Your task to perform on an android device: toggle airplane mode Image 0: 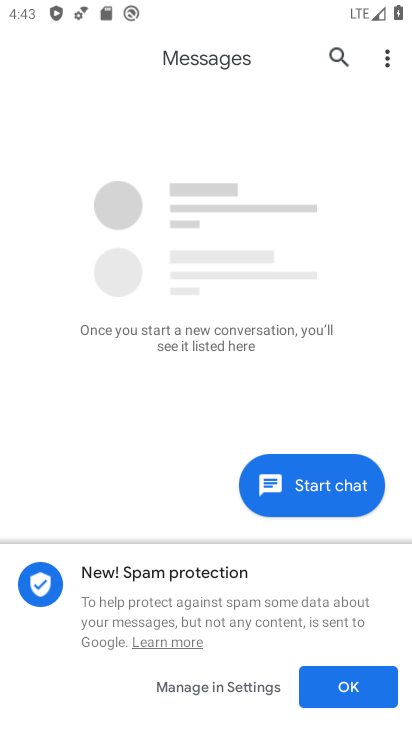
Step 0: press home button
Your task to perform on an android device: toggle airplane mode Image 1: 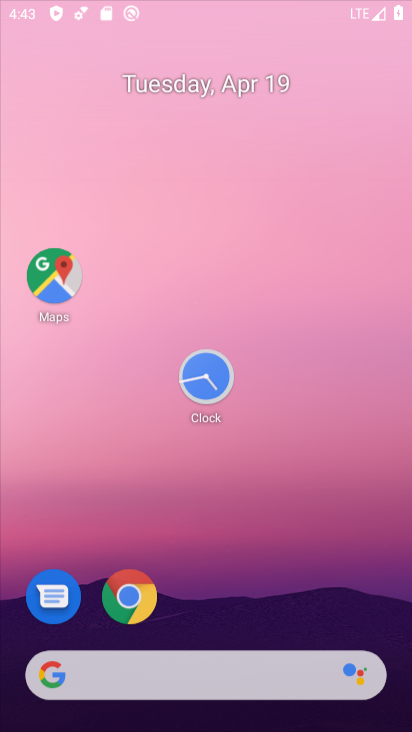
Step 1: press home button
Your task to perform on an android device: toggle airplane mode Image 2: 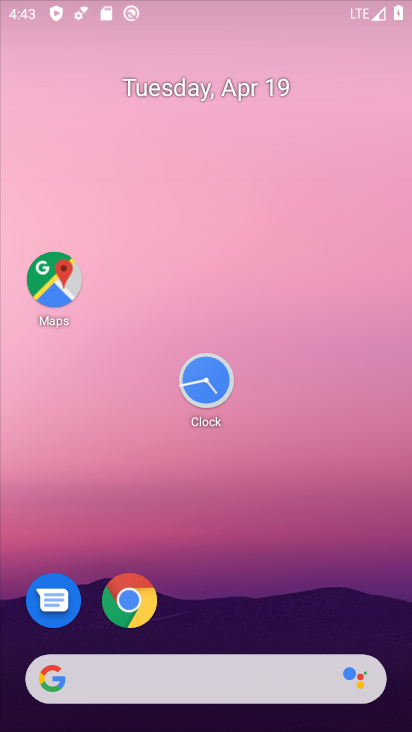
Step 2: press home button
Your task to perform on an android device: toggle airplane mode Image 3: 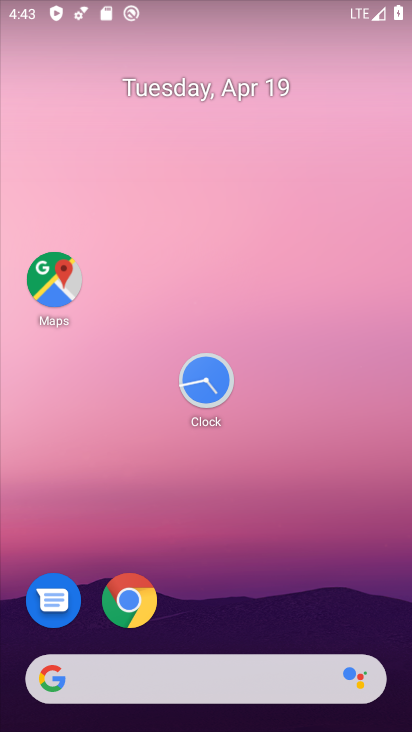
Step 3: press home button
Your task to perform on an android device: toggle airplane mode Image 4: 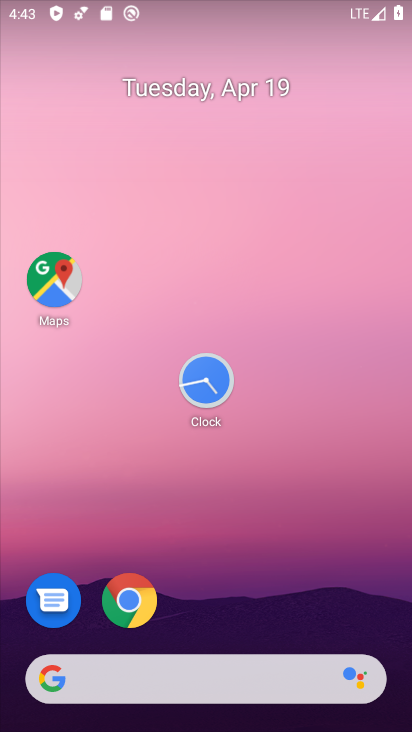
Step 4: drag from (281, 545) to (161, 203)
Your task to perform on an android device: toggle airplane mode Image 5: 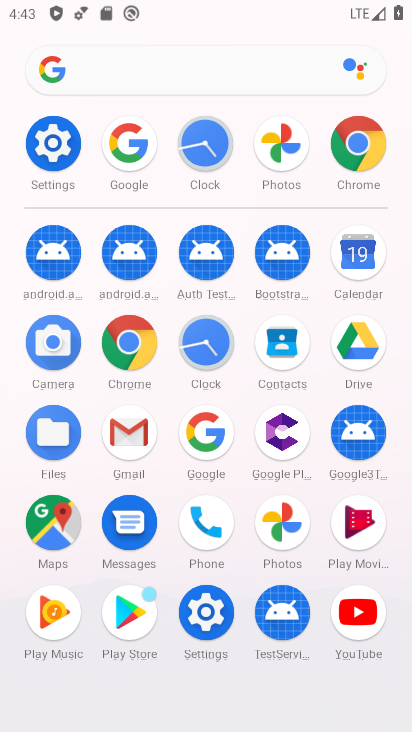
Step 5: drag from (267, 571) to (132, 85)
Your task to perform on an android device: toggle airplane mode Image 6: 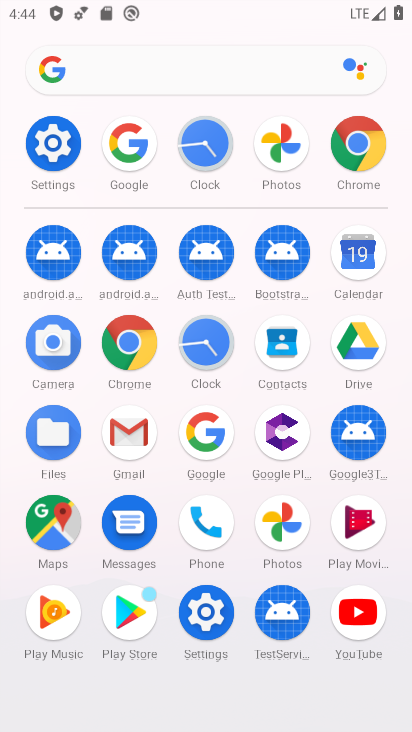
Step 6: click (43, 138)
Your task to perform on an android device: toggle airplane mode Image 7: 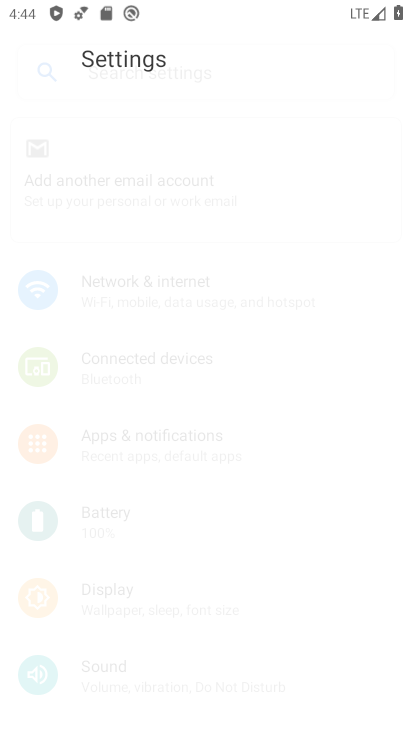
Step 7: click (45, 137)
Your task to perform on an android device: toggle airplane mode Image 8: 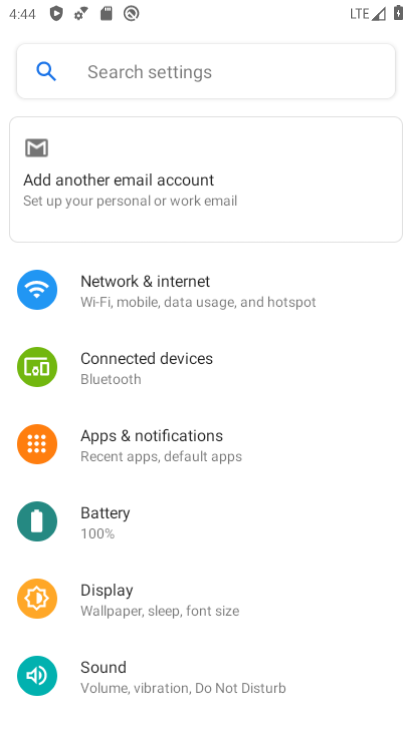
Step 8: click (48, 139)
Your task to perform on an android device: toggle airplane mode Image 9: 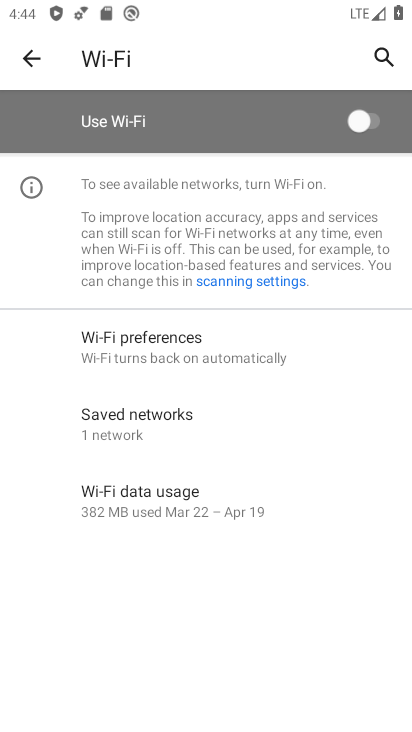
Step 9: click (31, 55)
Your task to perform on an android device: toggle airplane mode Image 10: 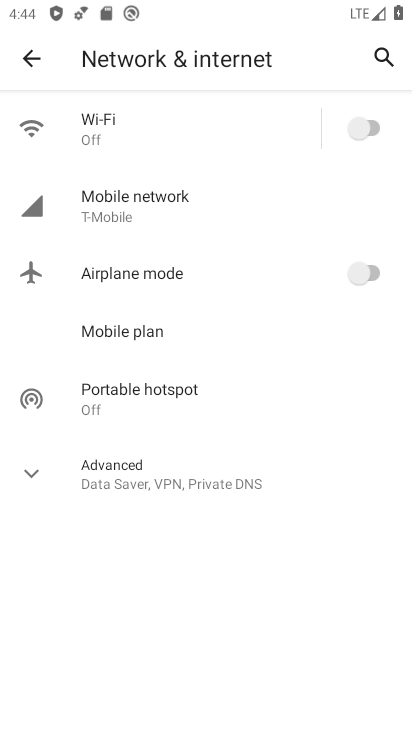
Step 10: click (31, 62)
Your task to perform on an android device: toggle airplane mode Image 11: 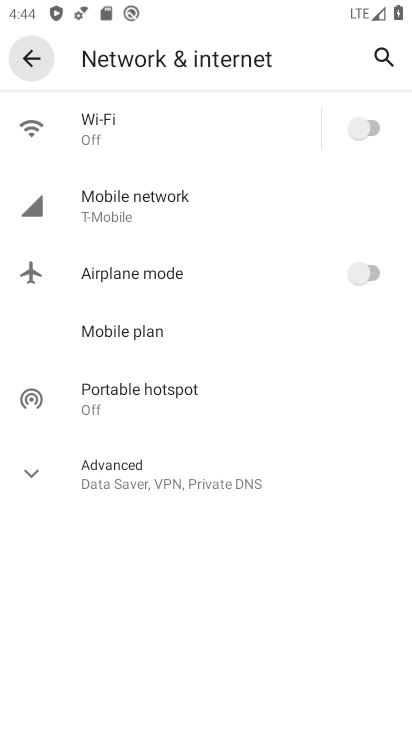
Step 11: click (31, 62)
Your task to perform on an android device: toggle airplane mode Image 12: 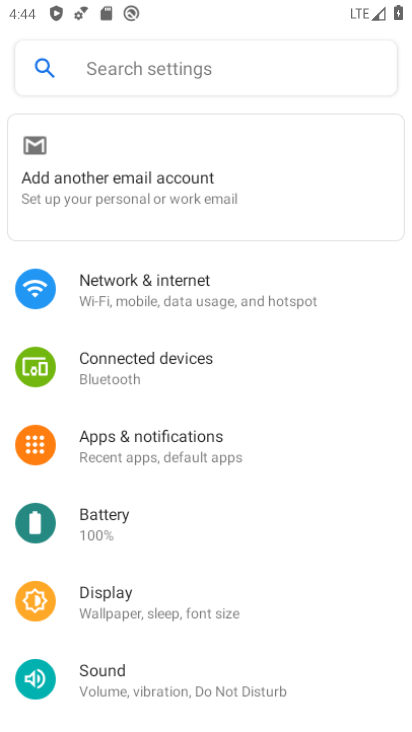
Step 12: click (31, 62)
Your task to perform on an android device: toggle airplane mode Image 13: 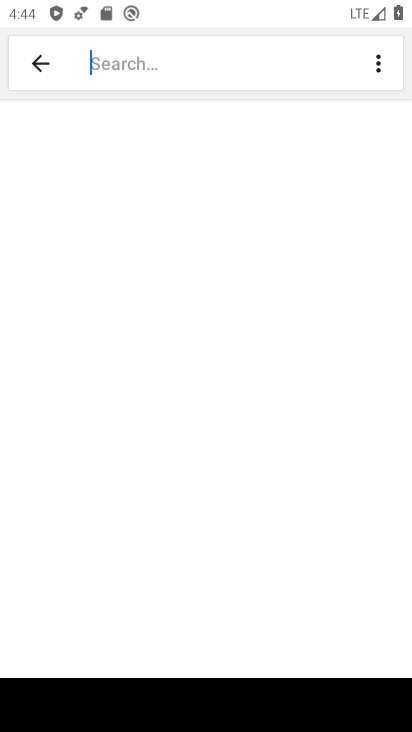
Step 13: click (36, 60)
Your task to perform on an android device: toggle airplane mode Image 14: 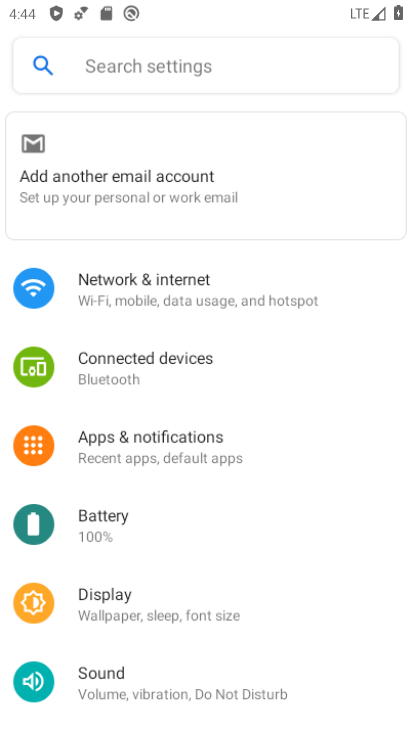
Step 14: click (33, 62)
Your task to perform on an android device: toggle airplane mode Image 15: 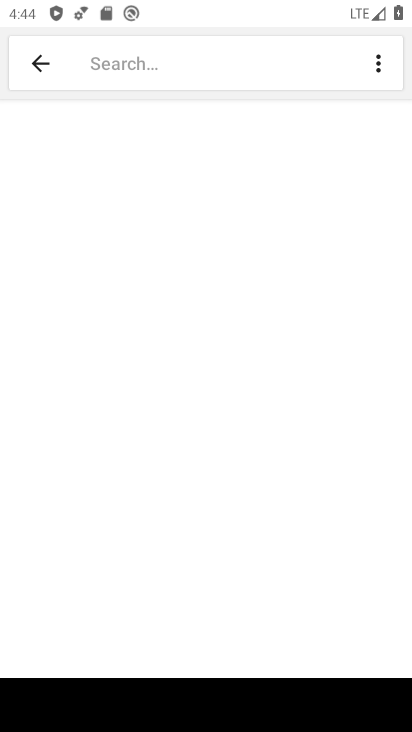
Step 15: click (39, 56)
Your task to perform on an android device: toggle airplane mode Image 16: 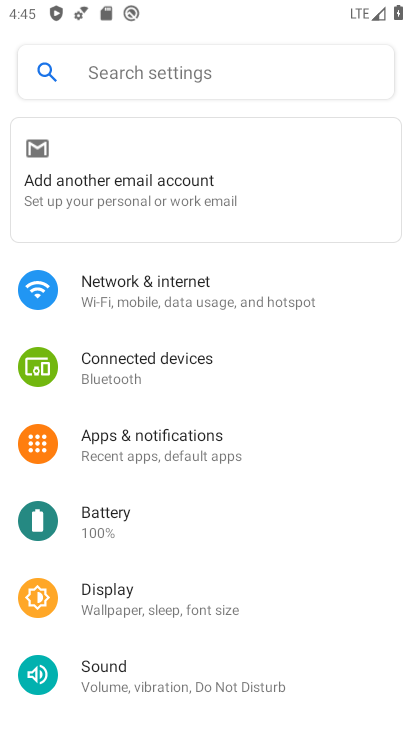
Step 16: click (168, 282)
Your task to perform on an android device: toggle airplane mode Image 17: 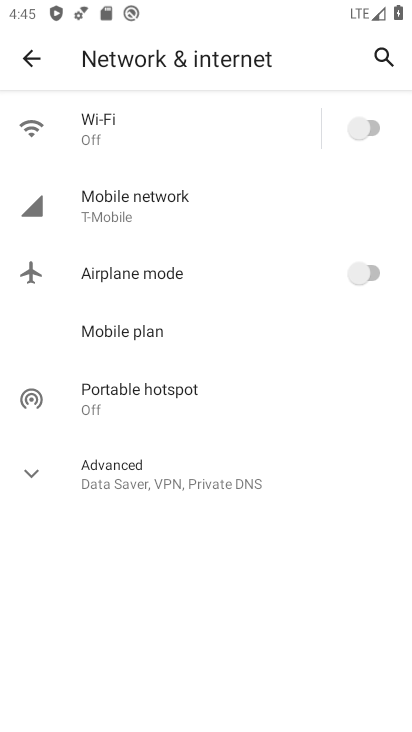
Step 17: click (359, 273)
Your task to perform on an android device: toggle airplane mode Image 18: 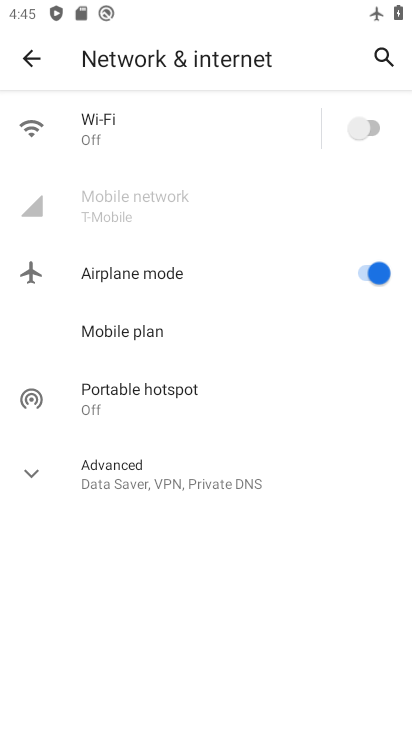
Step 18: task complete